Your task to perform on an android device: Go to Wikipedia Image 0: 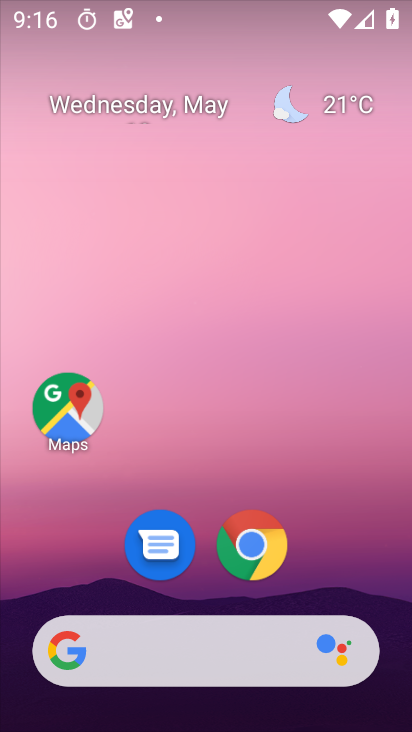
Step 0: click (245, 542)
Your task to perform on an android device: Go to Wikipedia Image 1: 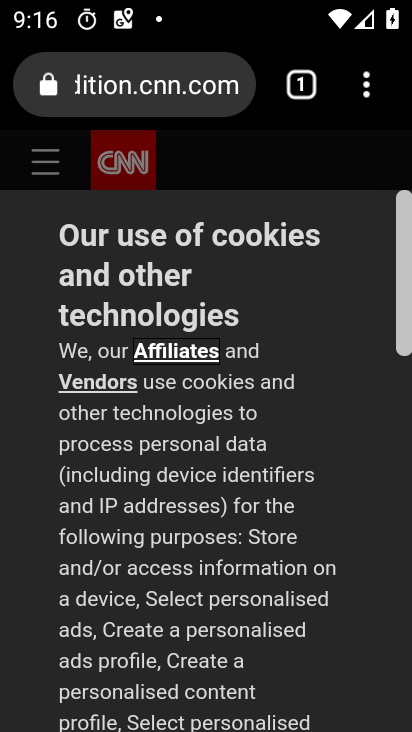
Step 1: click (145, 79)
Your task to perform on an android device: Go to Wikipedia Image 2: 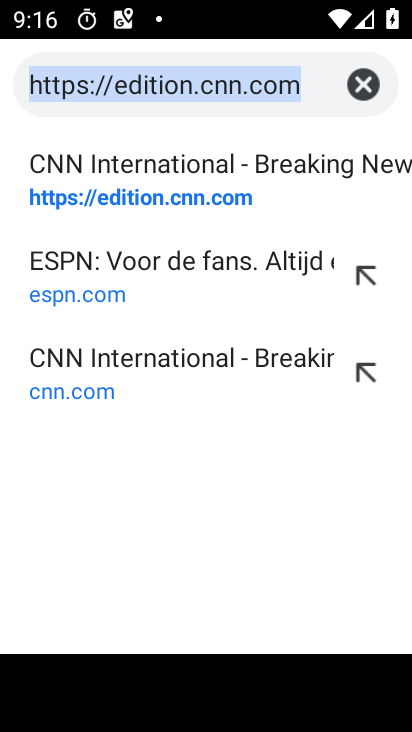
Step 2: type "wikipedia"
Your task to perform on an android device: Go to Wikipedia Image 3: 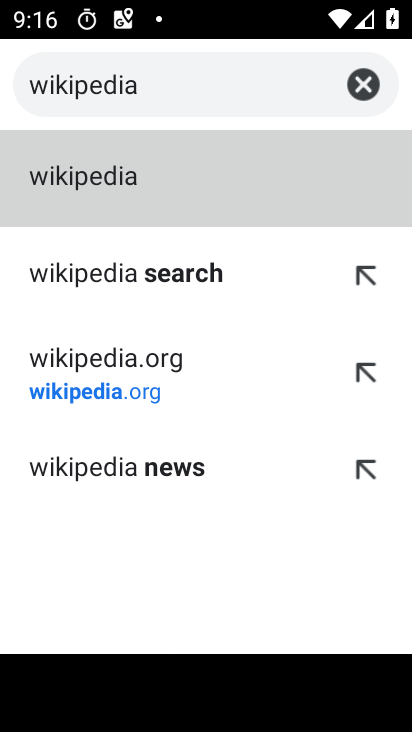
Step 3: click (205, 158)
Your task to perform on an android device: Go to Wikipedia Image 4: 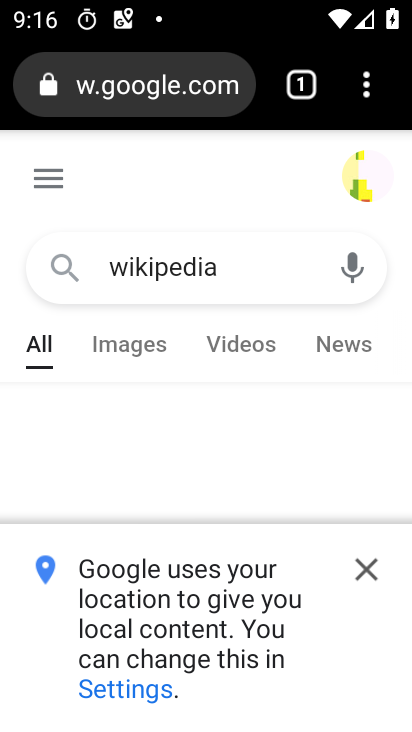
Step 4: click (363, 572)
Your task to perform on an android device: Go to Wikipedia Image 5: 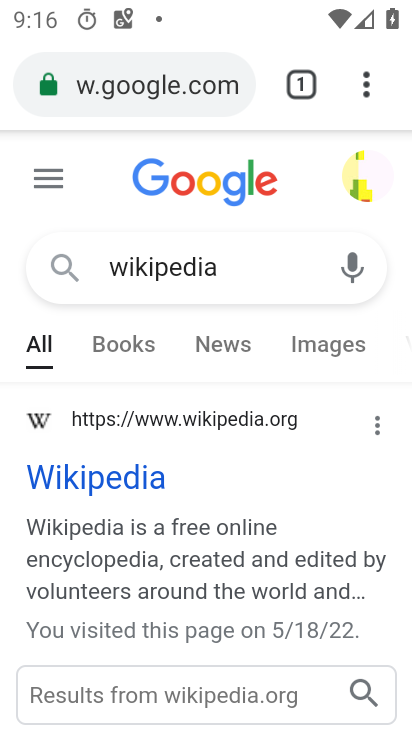
Step 5: click (118, 470)
Your task to perform on an android device: Go to Wikipedia Image 6: 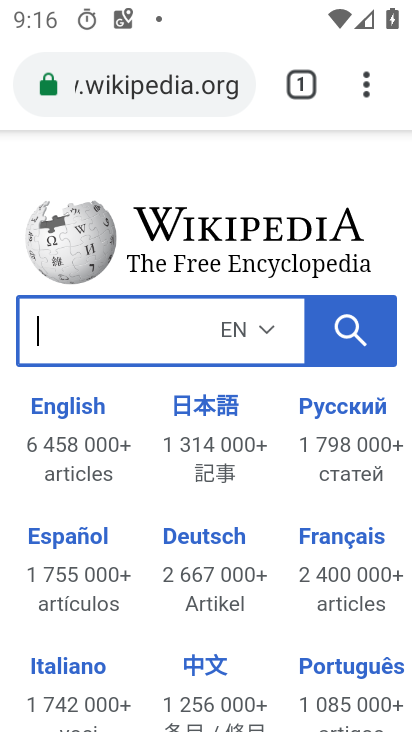
Step 6: task complete